Your task to perform on an android device: turn off javascript in the chrome app Image 0: 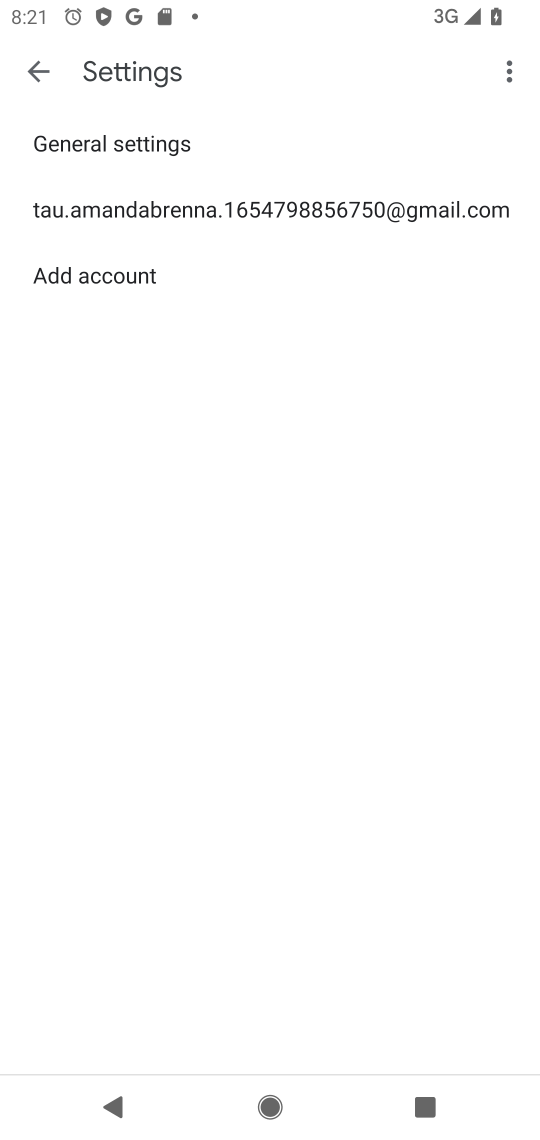
Step 0: press home button
Your task to perform on an android device: turn off javascript in the chrome app Image 1: 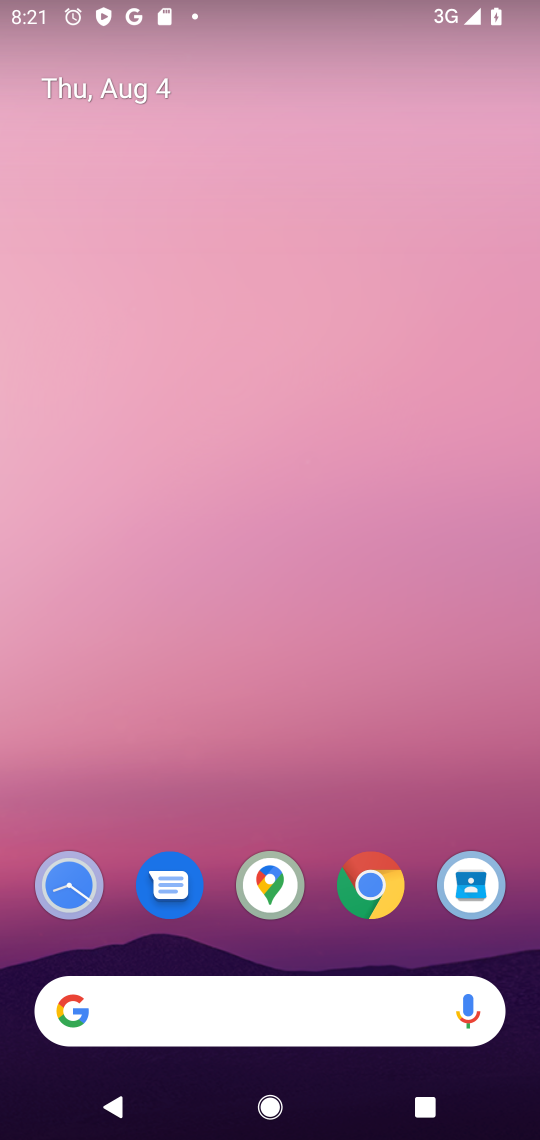
Step 1: click (381, 882)
Your task to perform on an android device: turn off javascript in the chrome app Image 2: 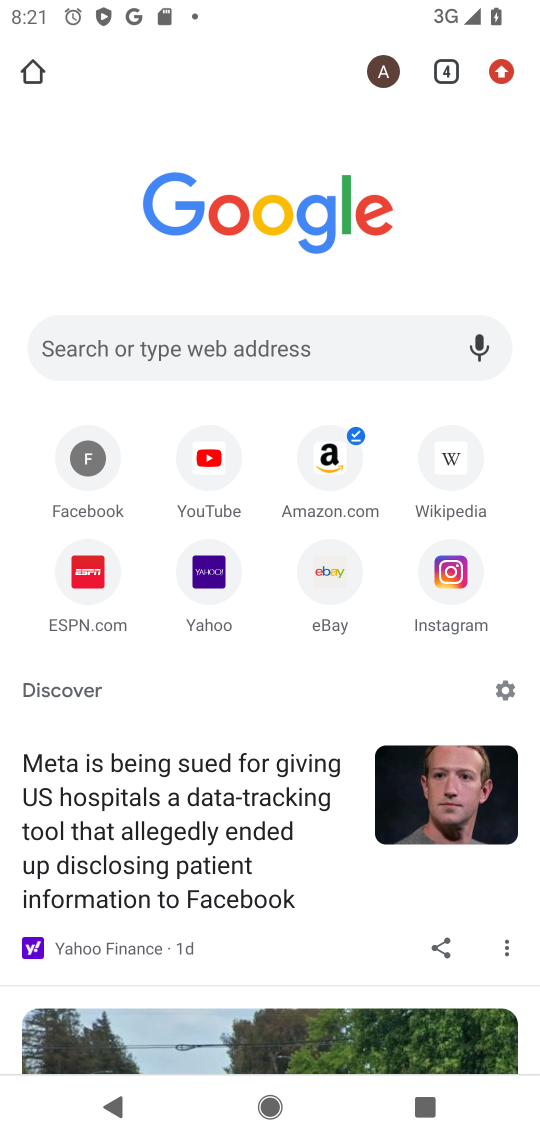
Step 2: click (502, 70)
Your task to perform on an android device: turn off javascript in the chrome app Image 3: 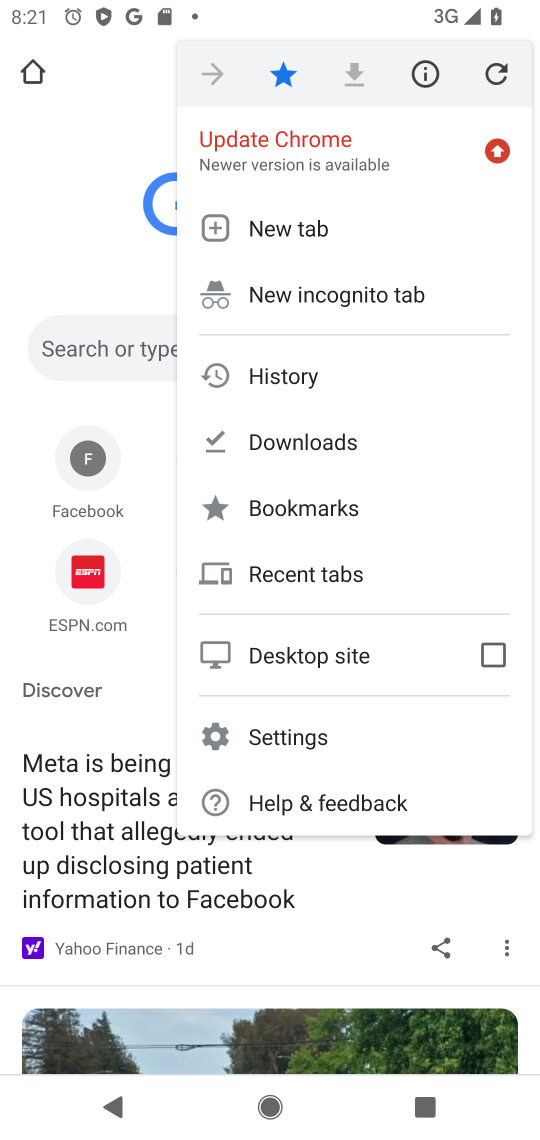
Step 3: click (338, 742)
Your task to perform on an android device: turn off javascript in the chrome app Image 4: 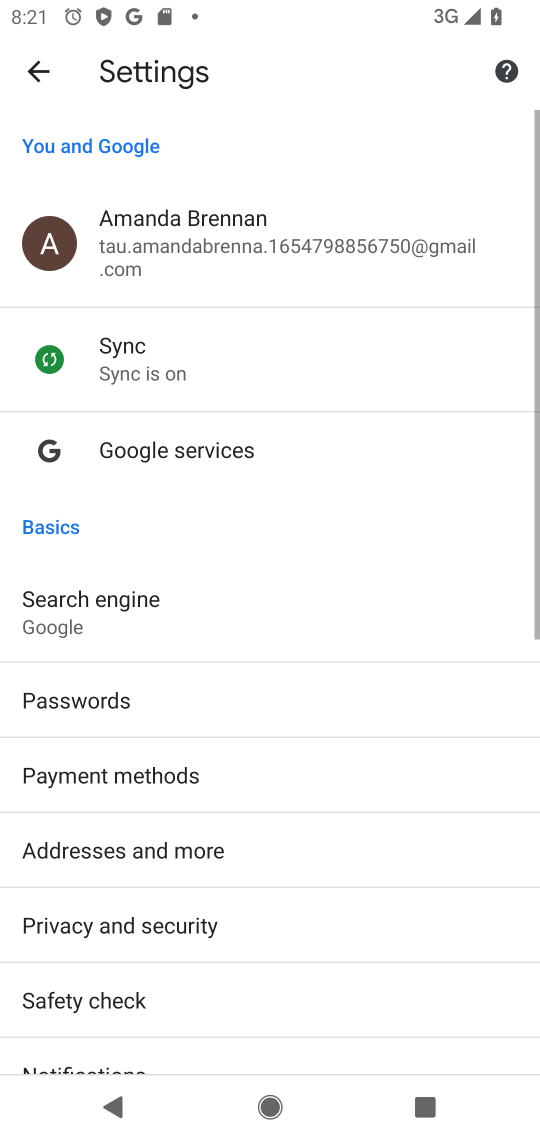
Step 4: drag from (244, 969) to (294, 204)
Your task to perform on an android device: turn off javascript in the chrome app Image 5: 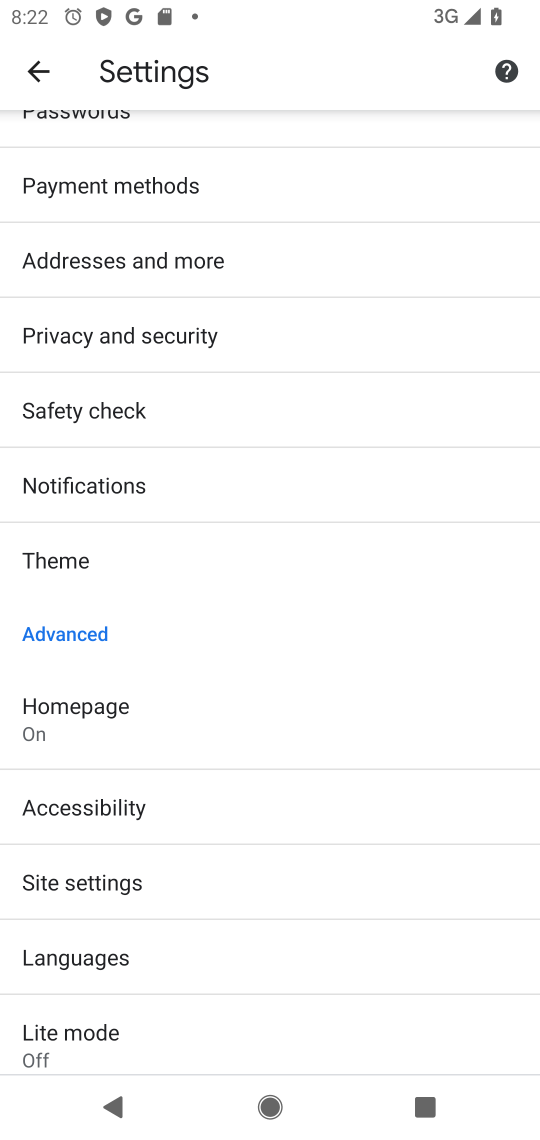
Step 5: click (154, 897)
Your task to perform on an android device: turn off javascript in the chrome app Image 6: 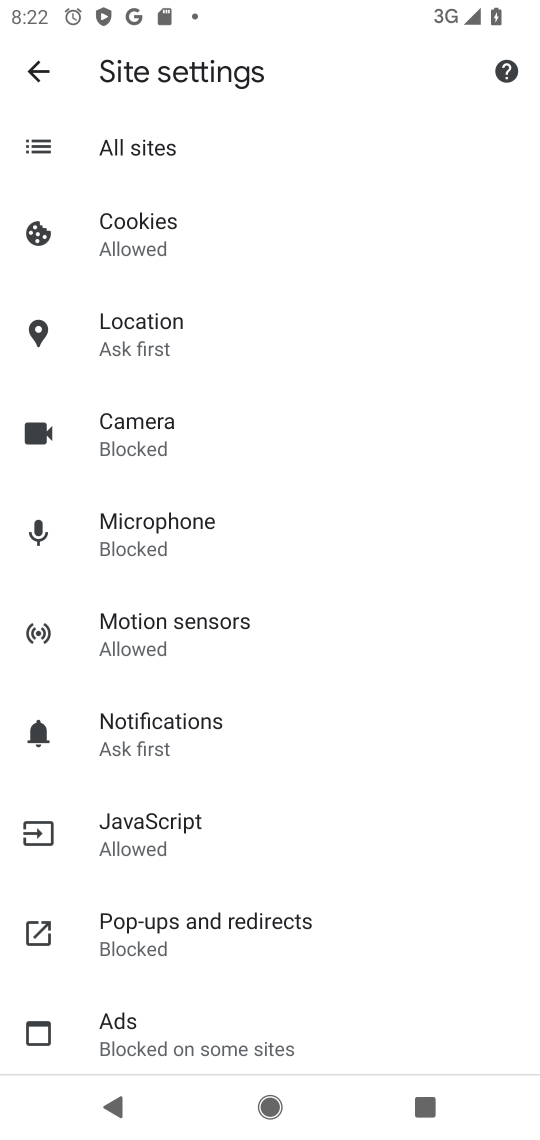
Step 6: click (198, 839)
Your task to perform on an android device: turn off javascript in the chrome app Image 7: 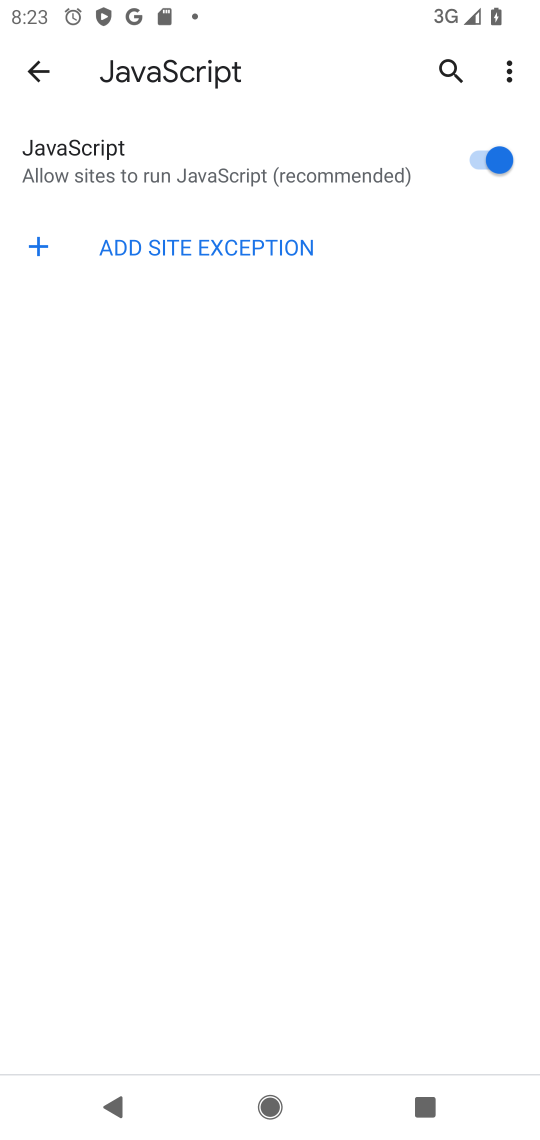
Step 7: click (499, 149)
Your task to perform on an android device: turn off javascript in the chrome app Image 8: 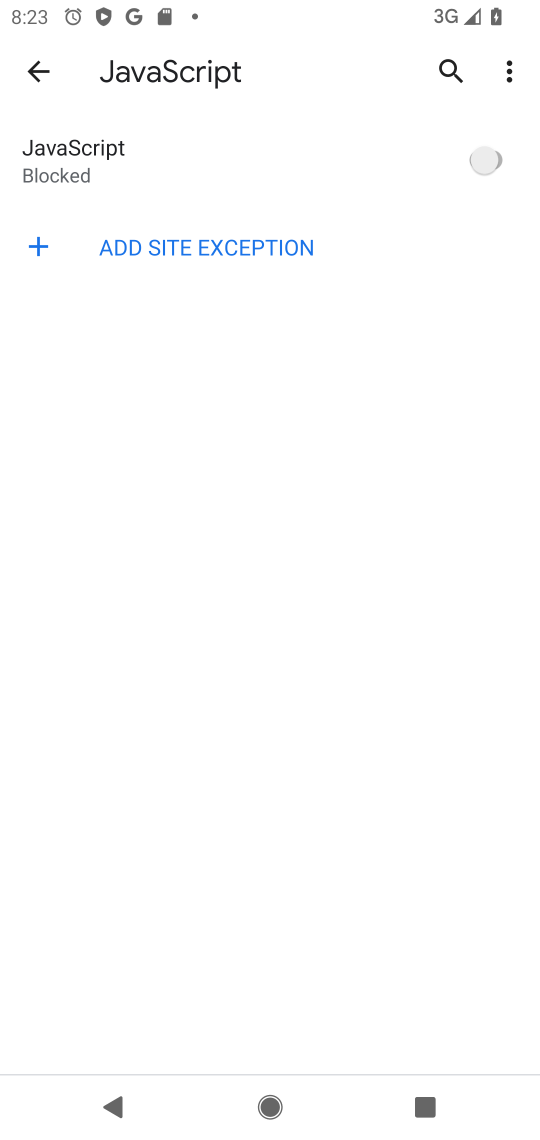
Step 8: task complete